Your task to perform on an android device: Open calendar and show me the fourth week of next month Image 0: 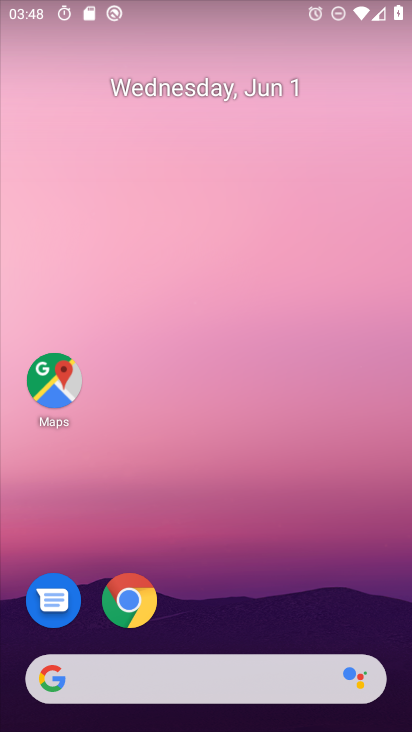
Step 0: drag from (180, 622) to (178, 327)
Your task to perform on an android device: Open calendar and show me the fourth week of next month Image 1: 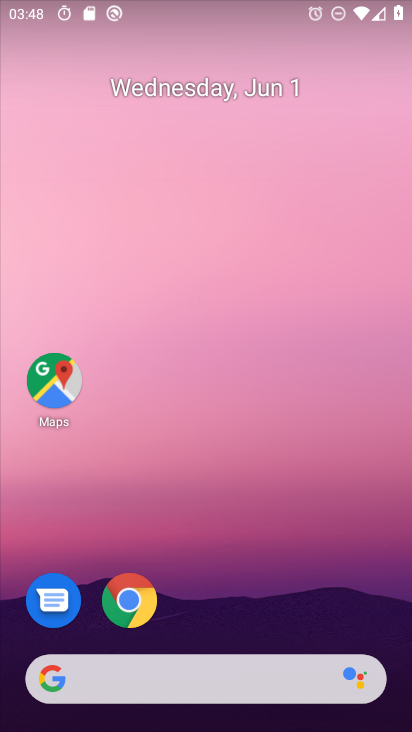
Step 1: drag from (219, 619) to (236, 62)
Your task to perform on an android device: Open calendar and show me the fourth week of next month Image 2: 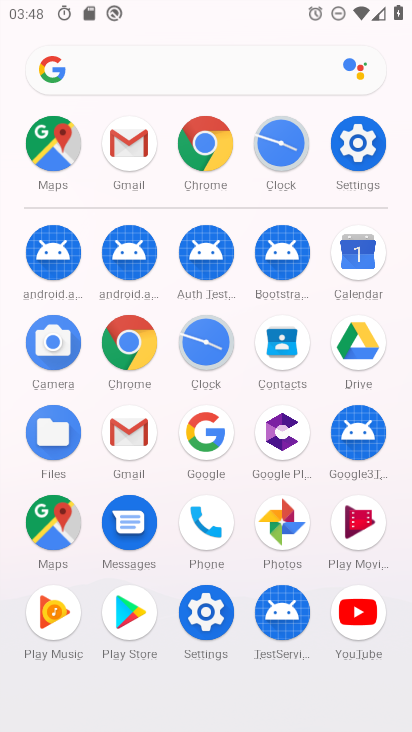
Step 2: click (359, 276)
Your task to perform on an android device: Open calendar and show me the fourth week of next month Image 3: 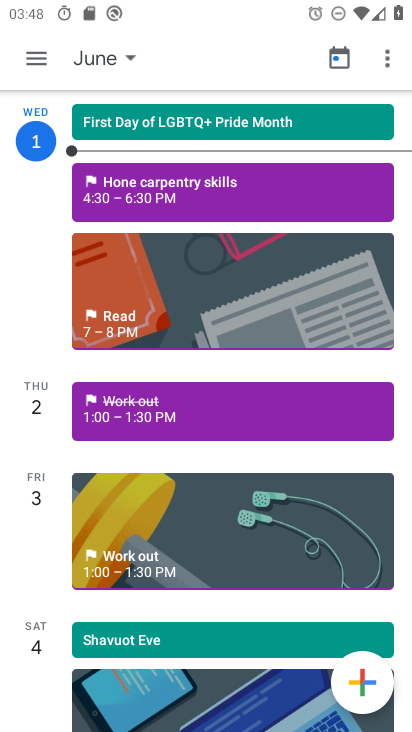
Step 3: click (31, 54)
Your task to perform on an android device: Open calendar and show me the fourth week of next month Image 4: 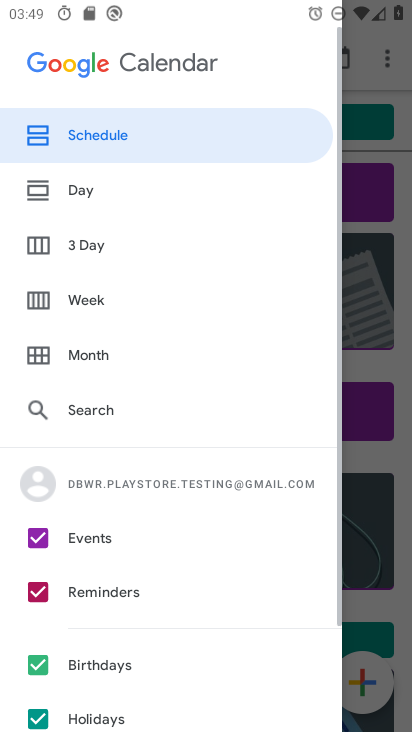
Step 4: click (94, 300)
Your task to perform on an android device: Open calendar and show me the fourth week of next month Image 5: 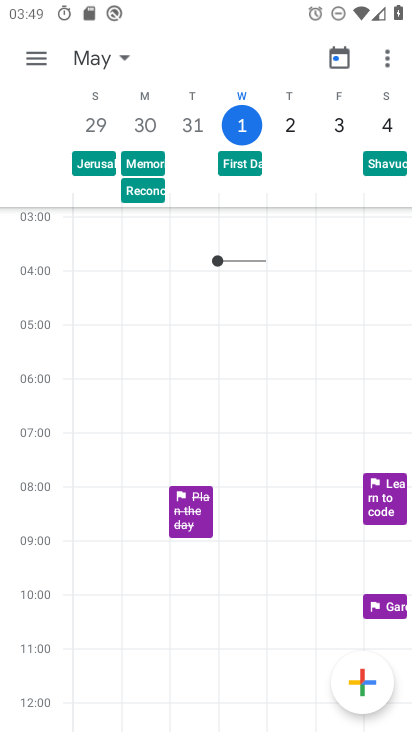
Step 5: click (88, 62)
Your task to perform on an android device: Open calendar and show me the fourth week of next month Image 6: 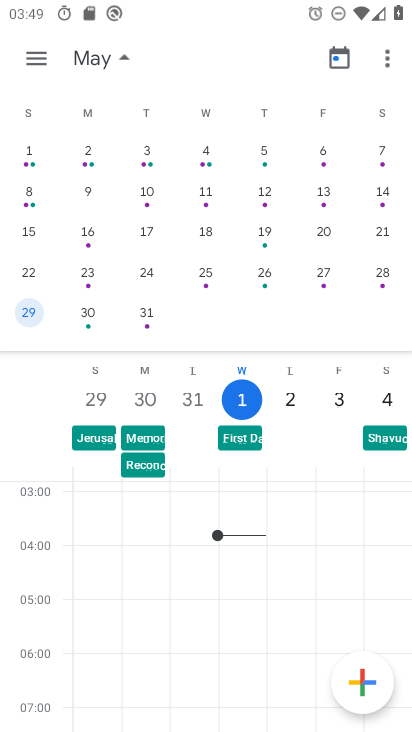
Step 6: drag from (363, 271) to (8, 254)
Your task to perform on an android device: Open calendar and show me the fourth week of next month Image 7: 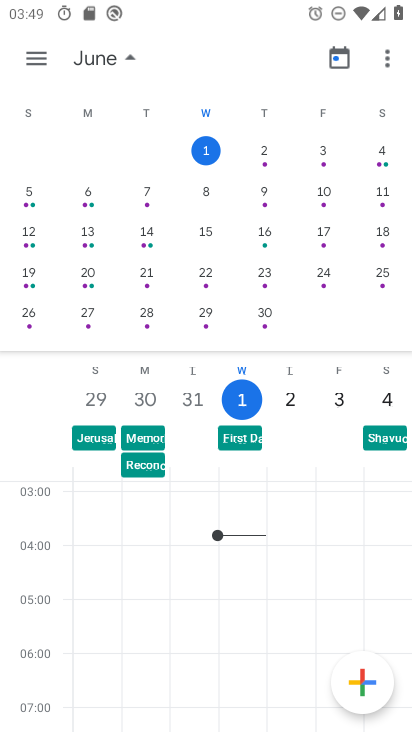
Step 7: click (30, 316)
Your task to perform on an android device: Open calendar and show me the fourth week of next month Image 8: 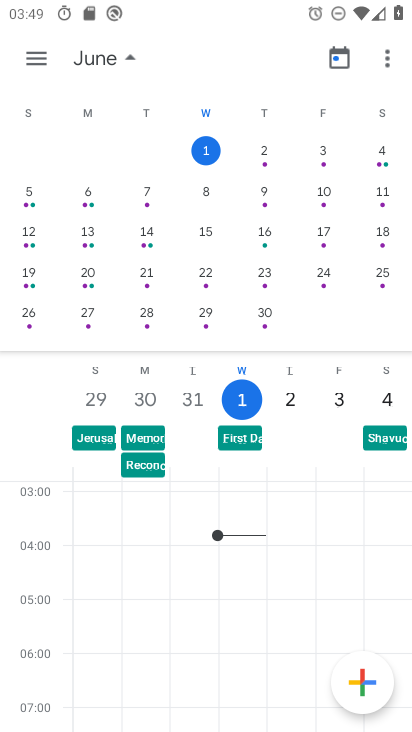
Step 8: click (29, 311)
Your task to perform on an android device: Open calendar and show me the fourth week of next month Image 9: 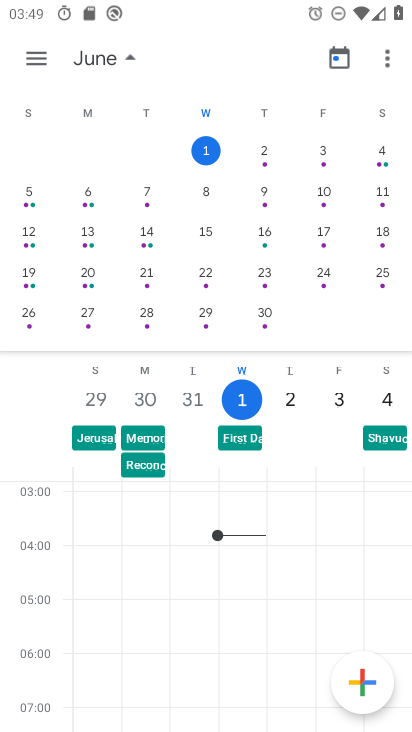
Step 9: click (33, 313)
Your task to perform on an android device: Open calendar and show me the fourth week of next month Image 10: 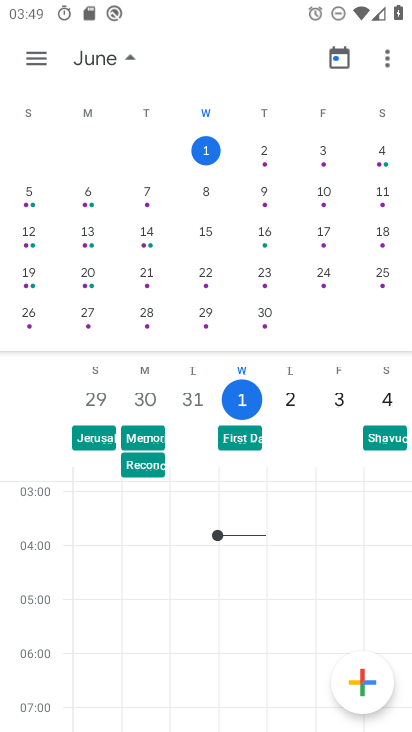
Step 10: click (33, 313)
Your task to perform on an android device: Open calendar and show me the fourth week of next month Image 11: 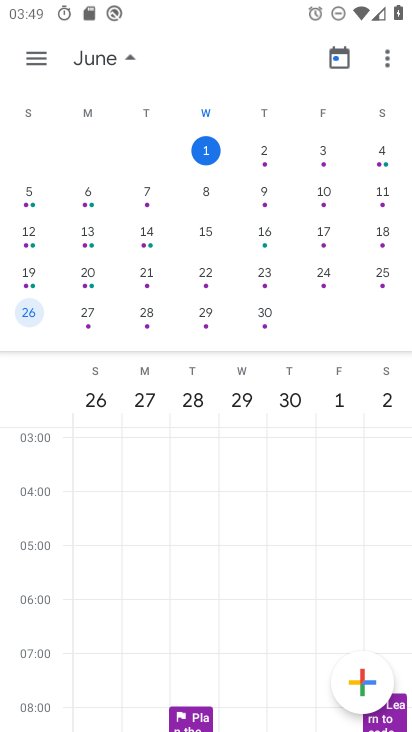
Step 11: task complete